Your task to perform on an android device: Show me popular videos on Youtube Image 0: 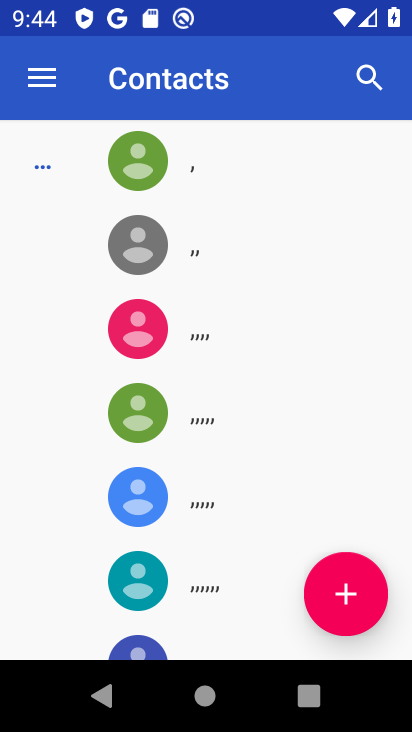
Step 0: press home button
Your task to perform on an android device: Show me popular videos on Youtube Image 1: 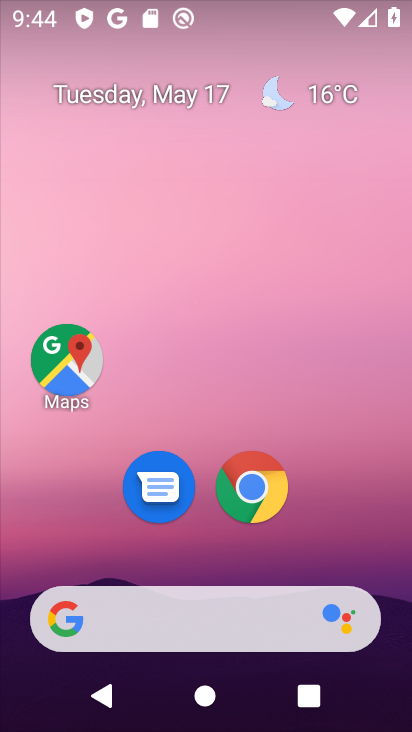
Step 1: click (408, 343)
Your task to perform on an android device: Show me popular videos on Youtube Image 2: 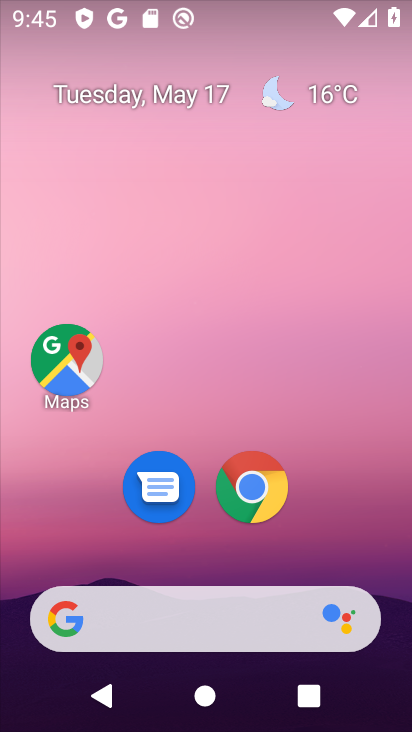
Step 2: drag from (391, 675) to (372, 344)
Your task to perform on an android device: Show me popular videos on Youtube Image 3: 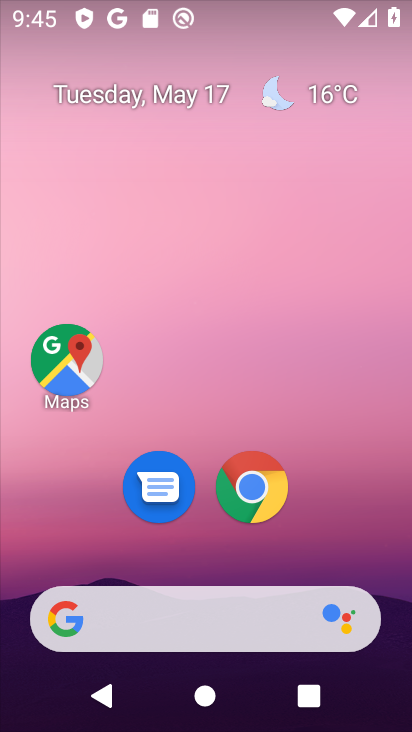
Step 3: drag from (394, 661) to (365, 289)
Your task to perform on an android device: Show me popular videos on Youtube Image 4: 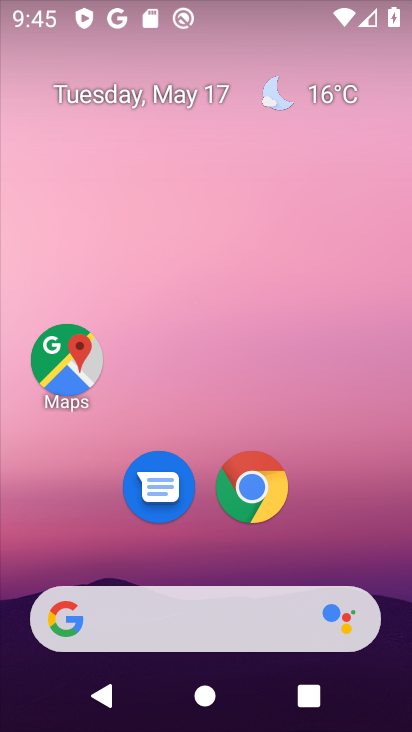
Step 4: drag from (376, 614) to (371, 153)
Your task to perform on an android device: Show me popular videos on Youtube Image 5: 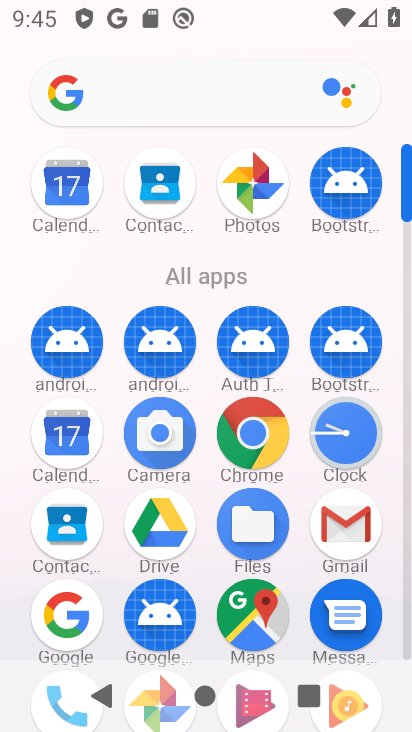
Step 5: drag from (404, 152) to (395, 93)
Your task to perform on an android device: Show me popular videos on Youtube Image 6: 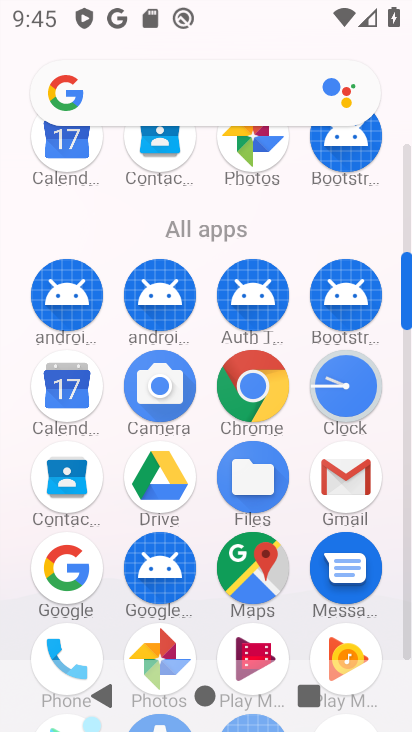
Step 6: click (407, 184)
Your task to perform on an android device: Show me popular videos on Youtube Image 7: 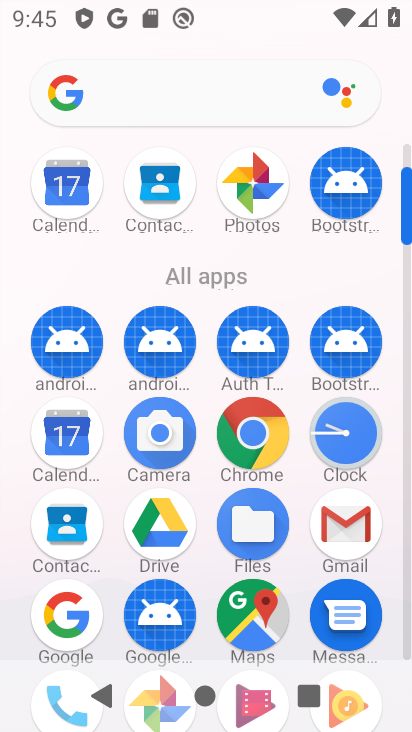
Step 7: drag from (403, 141) to (400, 86)
Your task to perform on an android device: Show me popular videos on Youtube Image 8: 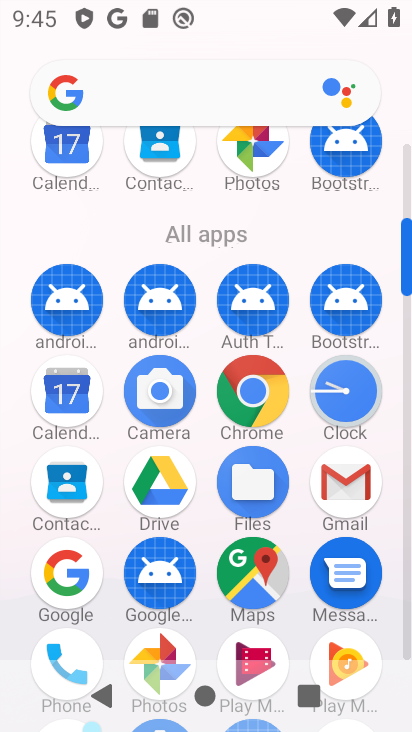
Step 8: drag from (406, 244) to (410, 175)
Your task to perform on an android device: Show me popular videos on Youtube Image 9: 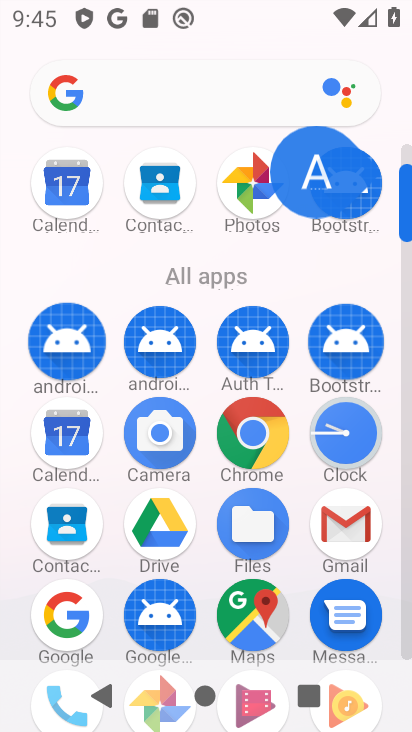
Step 9: drag from (406, 232) to (398, 169)
Your task to perform on an android device: Show me popular videos on Youtube Image 10: 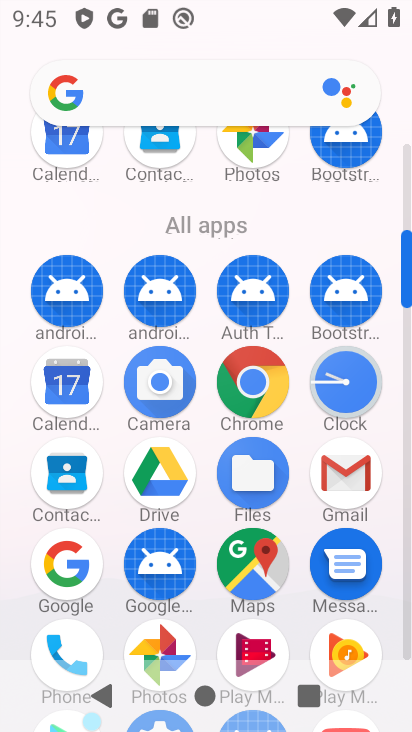
Step 10: drag from (406, 234) to (405, 175)
Your task to perform on an android device: Show me popular videos on Youtube Image 11: 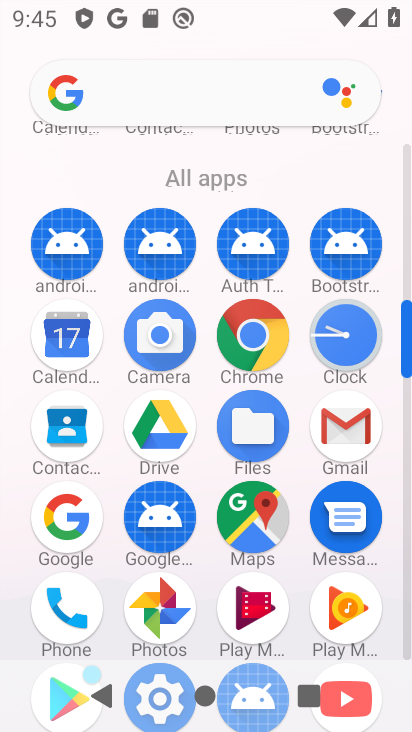
Step 11: drag from (409, 308) to (407, 248)
Your task to perform on an android device: Show me popular videos on Youtube Image 12: 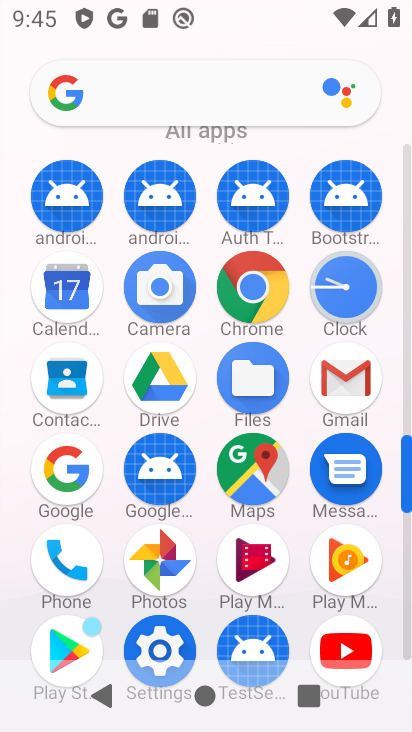
Step 12: click (340, 639)
Your task to perform on an android device: Show me popular videos on Youtube Image 13: 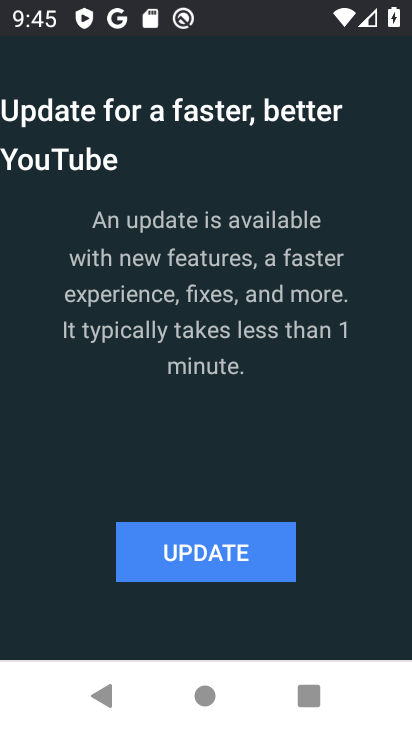
Step 13: click (201, 538)
Your task to perform on an android device: Show me popular videos on Youtube Image 14: 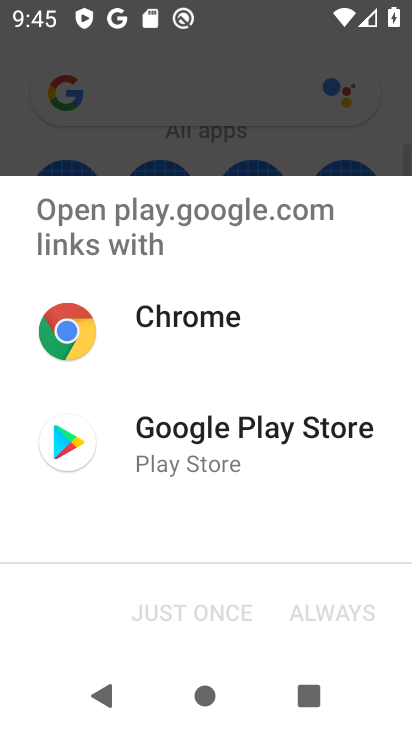
Step 14: click (143, 453)
Your task to perform on an android device: Show me popular videos on Youtube Image 15: 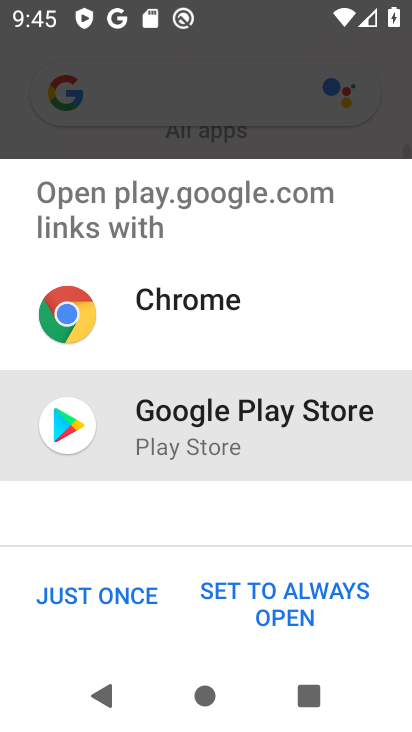
Step 15: click (111, 587)
Your task to perform on an android device: Show me popular videos on Youtube Image 16: 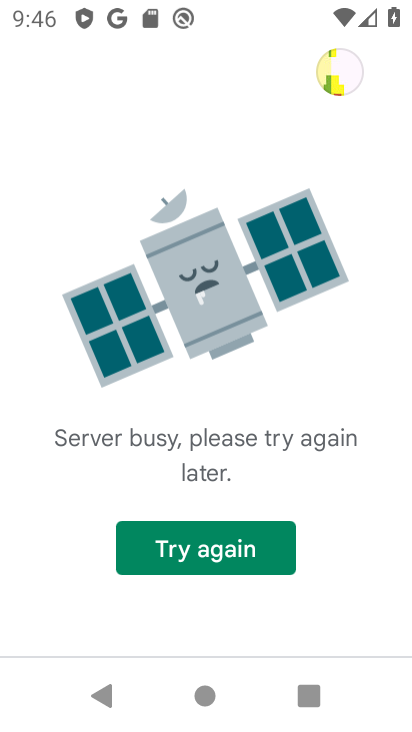
Step 16: task complete